Your task to perform on an android device: Open location settings Image 0: 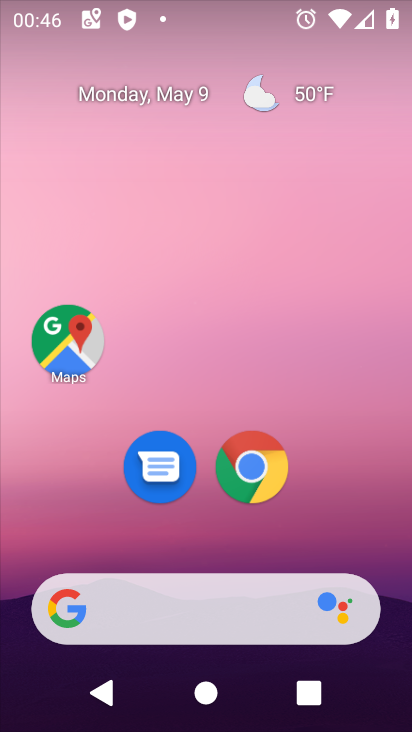
Step 0: drag from (224, 541) to (197, 6)
Your task to perform on an android device: Open location settings Image 1: 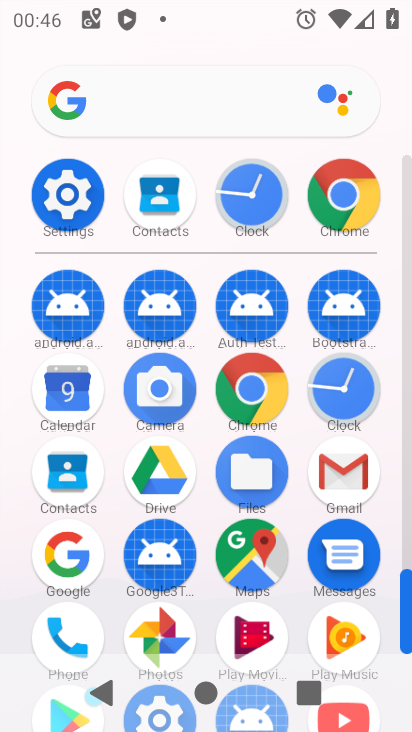
Step 1: click (70, 192)
Your task to perform on an android device: Open location settings Image 2: 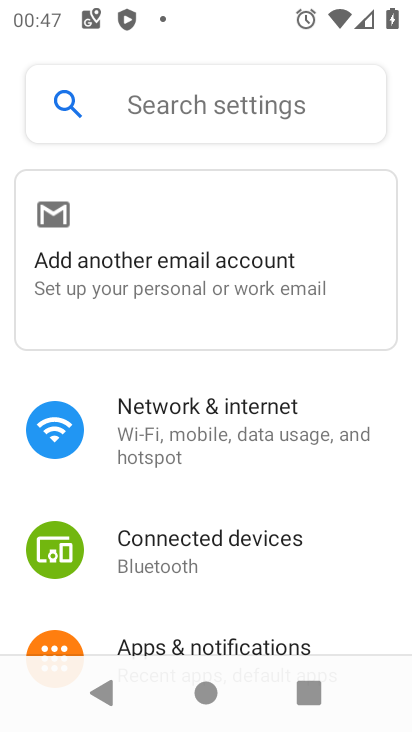
Step 2: drag from (215, 607) to (199, 35)
Your task to perform on an android device: Open location settings Image 3: 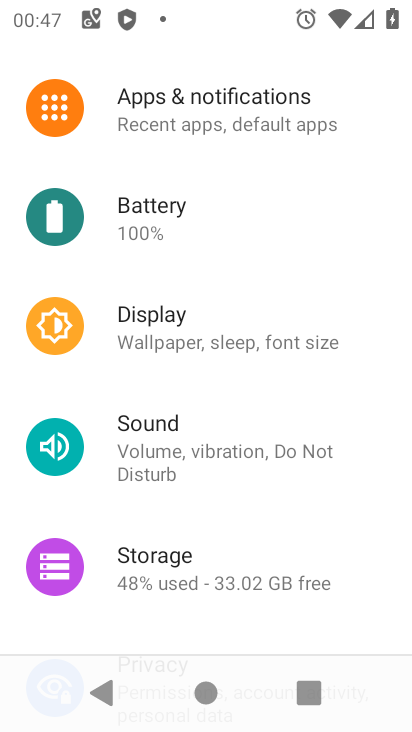
Step 3: drag from (197, 624) to (200, 82)
Your task to perform on an android device: Open location settings Image 4: 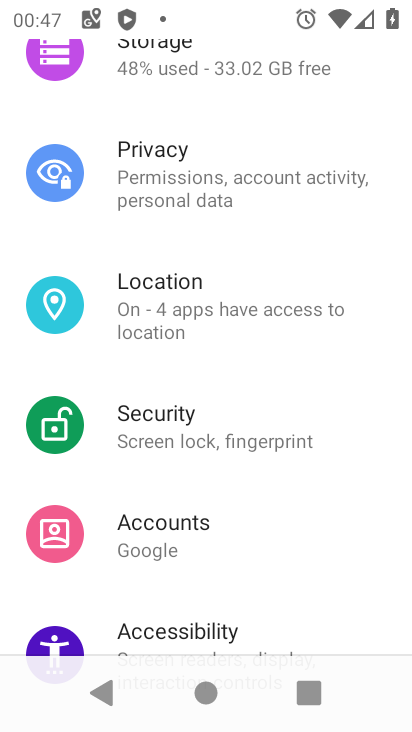
Step 4: click (199, 294)
Your task to perform on an android device: Open location settings Image 5: 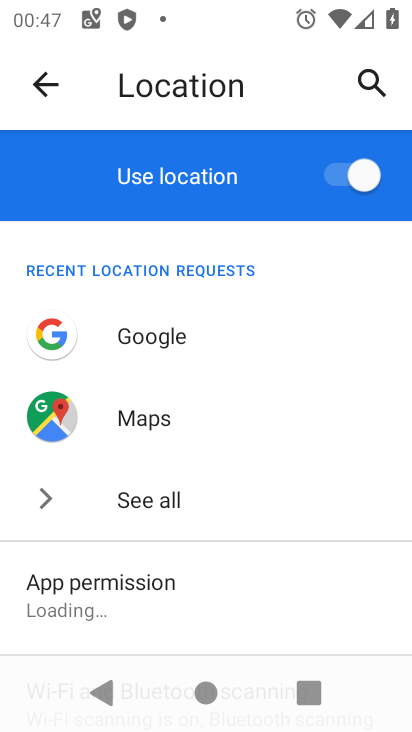
Step 5: drag from (198, 607) to (176, 86)
Your task to perform on an android device: Open location settings Image 6: 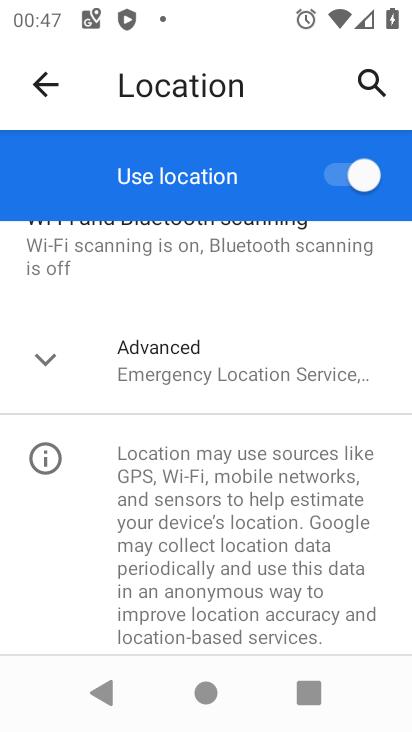
Step 6: click (48, 356)
Your task to perform on an android device: Open location settings Image 7: 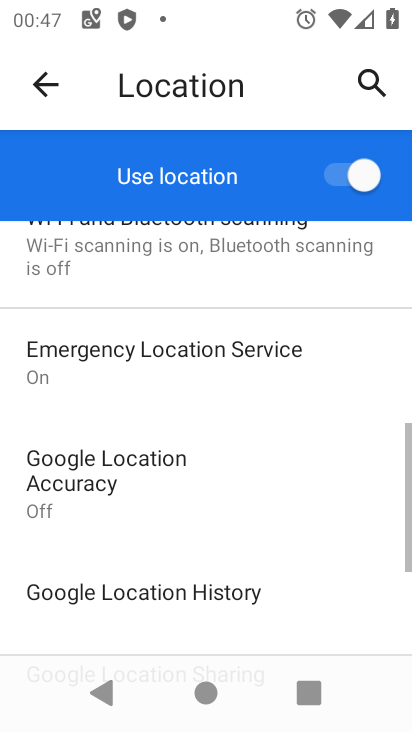
Step 7: task complete